Your task to perform on an android device: Search for seafood restaurants on Google Maps Image 0: 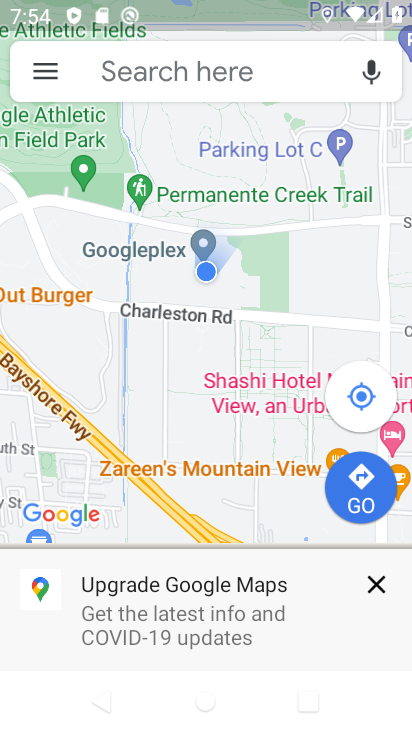
Step 0: press home button
Your task to perform on an android device: Search for seafood restaurants on Google Maps Image 1: 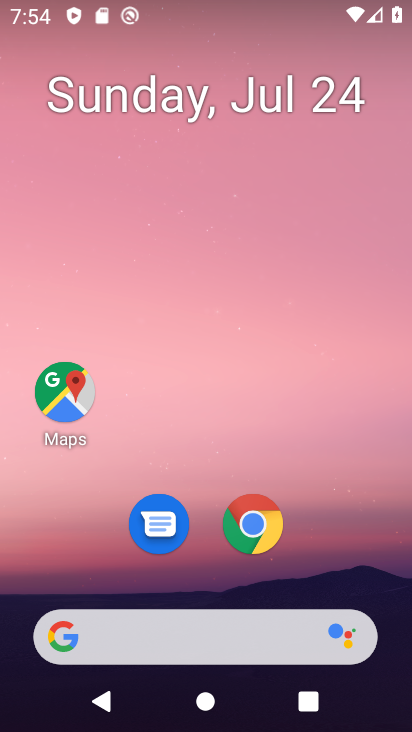
Step 1: click (67, 399)
Your task to perform on an android device: Search for seafood restaurants on Google Maps Image 2: 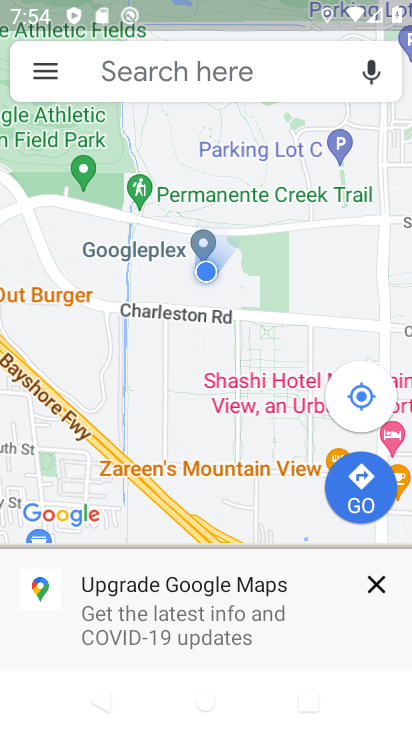
Step 2: click (369, 578)
Your task to perform on an android device: Search for seafood restaurants on Google Maps Image 3: 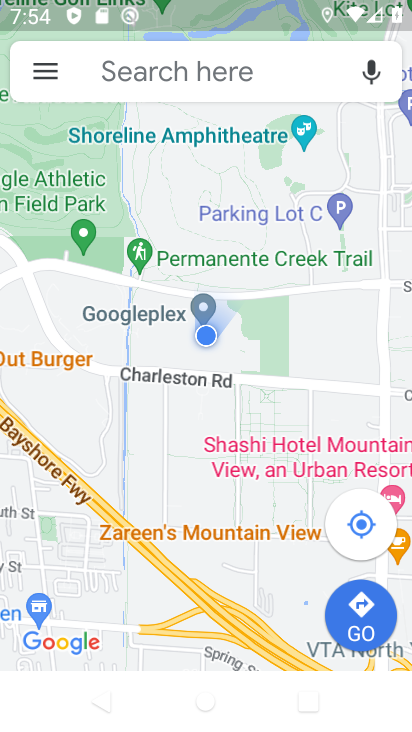
Step 3: click (142, 68)
Your task to perform on an android device: Search for seafood restaurants on Google Maps Image 4: 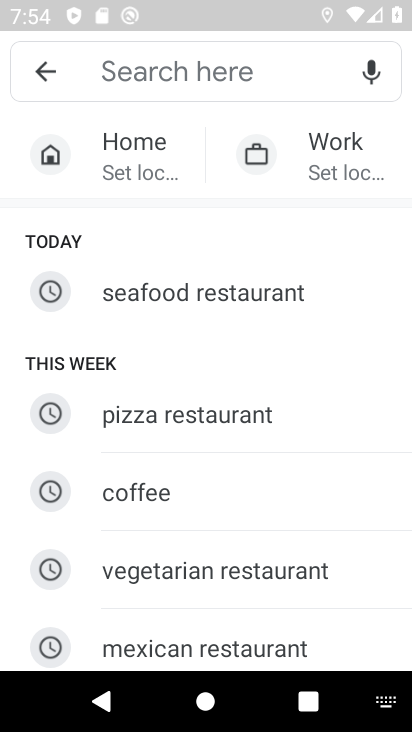
Step 4: click (197, 292)
Your task to perform on an android device: Search for seafood restaurants on Google Maps Image 5: 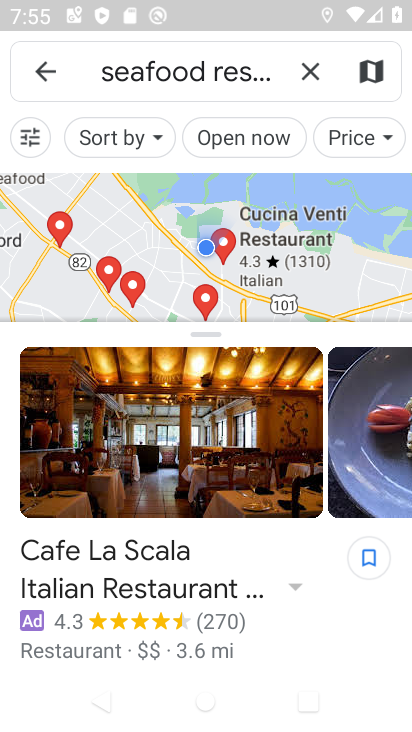
Step 5: task complete